Your task to perform on an android device: Search for Italian restaurants on Maps Image 0: 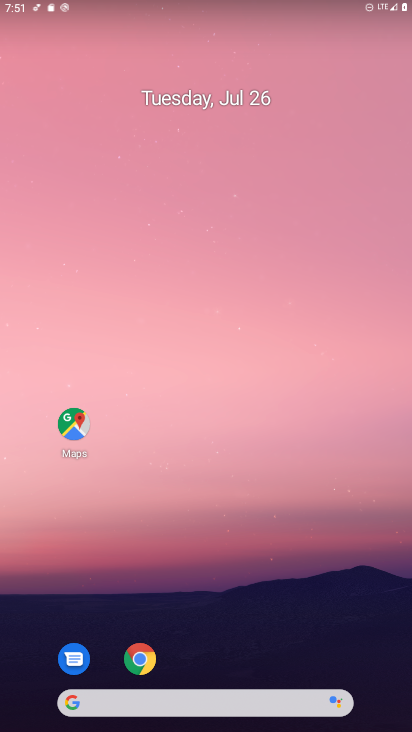
Step 0: drag from (177, 622) to (230, 205)
Your task to perform on an android device: Search for Italian restaurants on Maps Image 1: 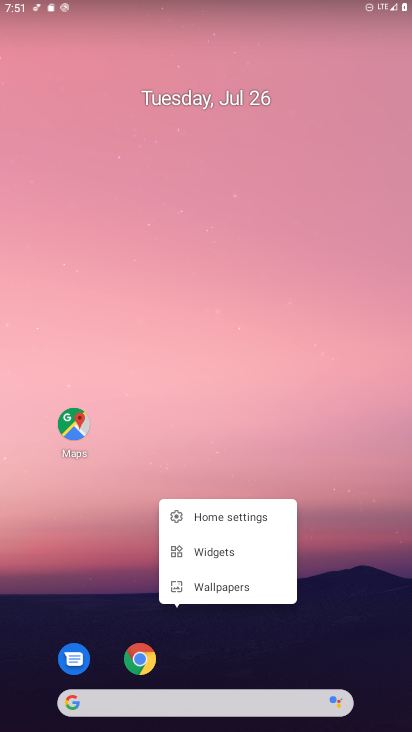
Step 1: click (211, 437)
Your task to perform on an android device: Search for Italian restaurants on Maps Image 2: 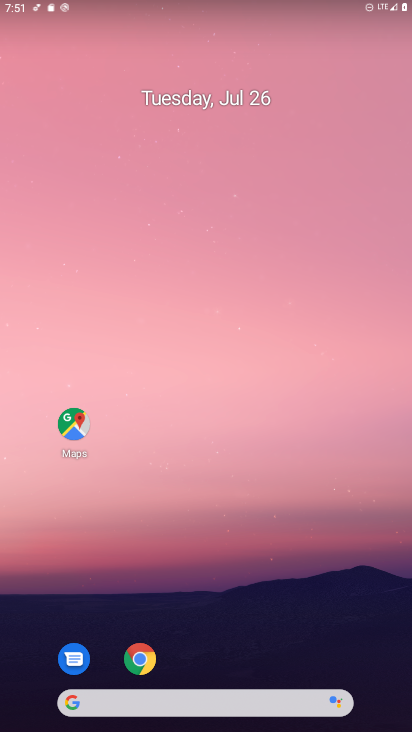
Step 2: click (66, 388)
Your task to perform on an android device: Search for Italian restaurants on Maps Image 3: 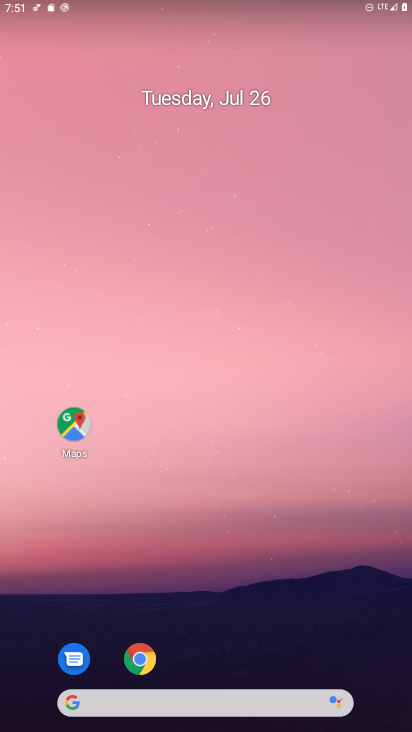
Step 3: click (62, 421)
Your task to perform on an android device: Search for Italian restaurants on Maps Image 4: 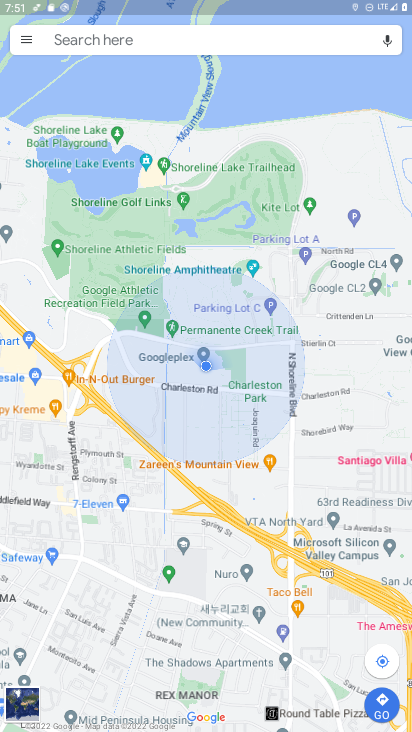
Step 4: click (153, 40)
Your task to perform on an android device: Search for Italian restaurants on Maps Image 5: 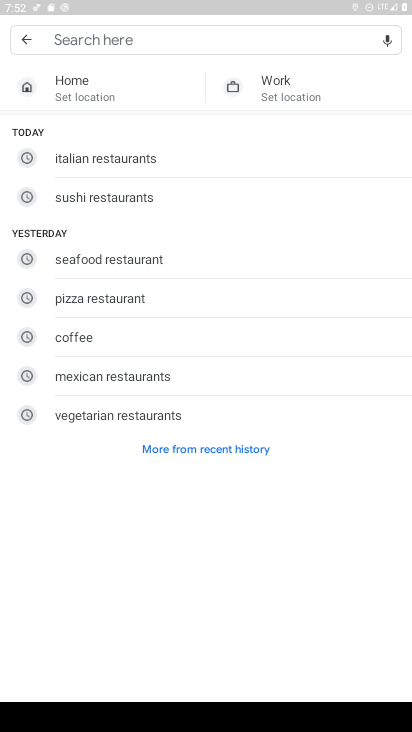
Step 5: click (76, 173)
Your task to perform on an android device: Search for Italian restaurants on Maps Image 6: 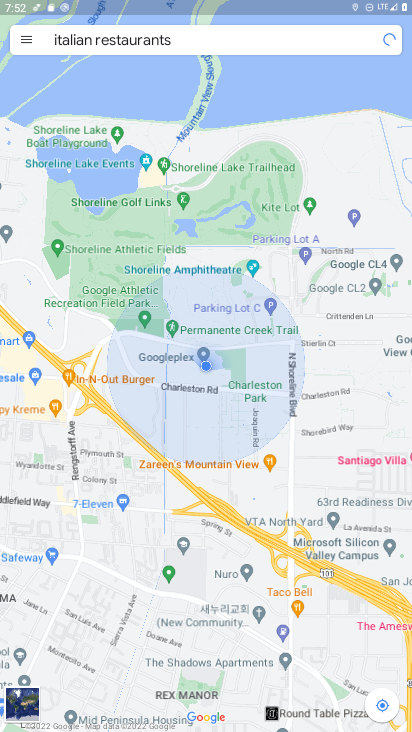
Step 6: task complete